Your task to perform on an android device: View the shopping cart on ebay.com. Image 0: 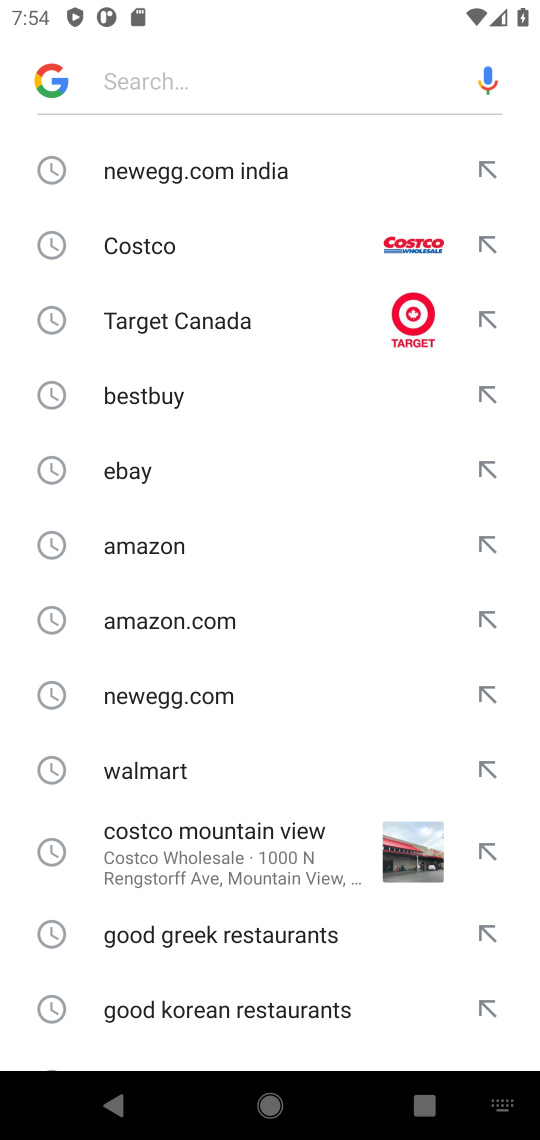
Step 0: click (142, 466)
Your task to perform on an android device: View the shopping cart on ebay.com. Image 1: 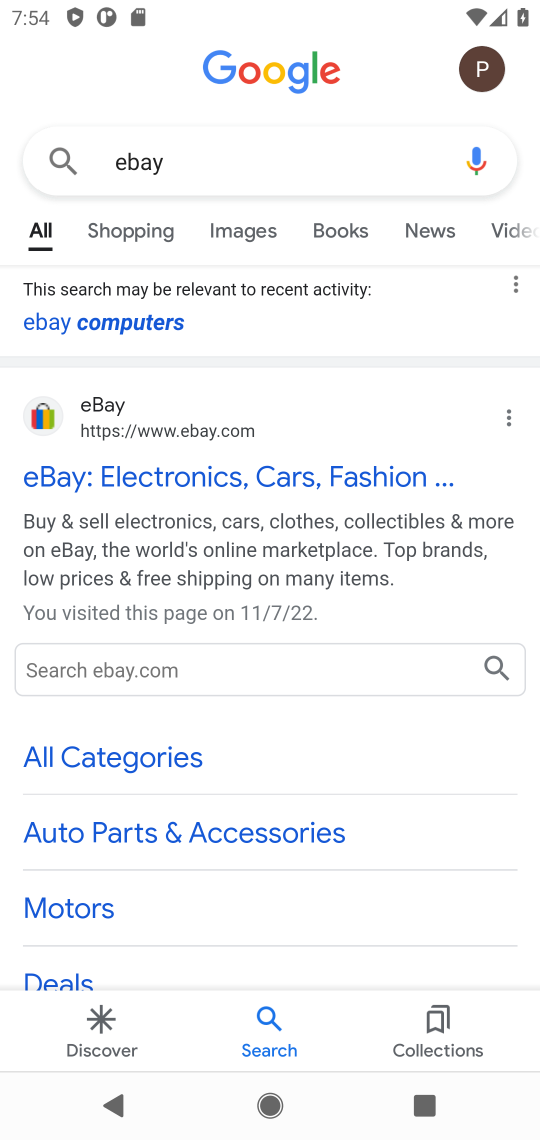
Step 1: click (142, 466)
Your task to perform on an android device: View the shopping cart on ebay.com. Image 2: 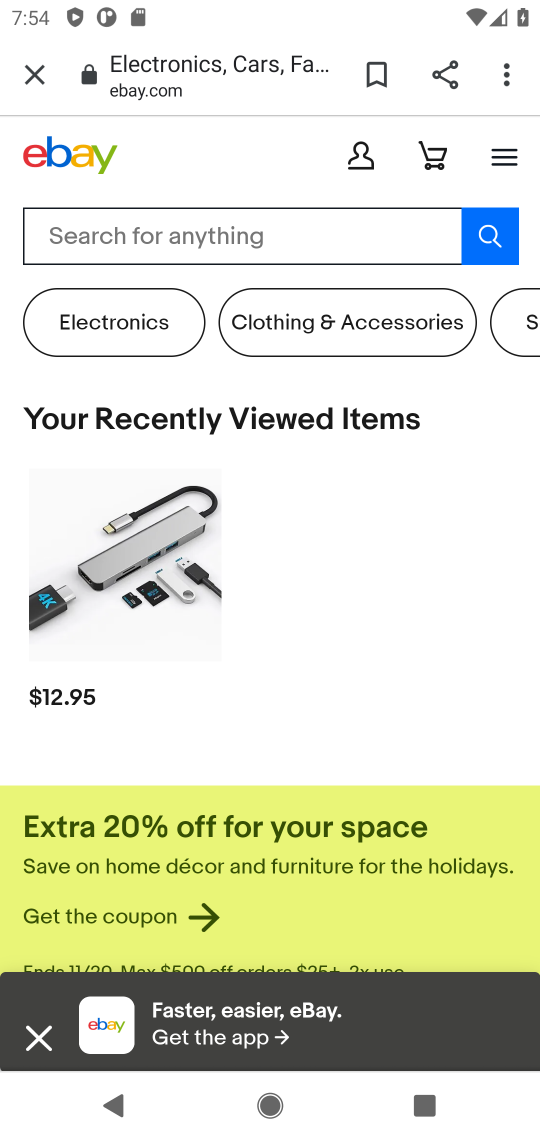
Step 2: click (269, 223)
Your task to perform on an android device: View the shopping cart on ebay.com. Image 3: 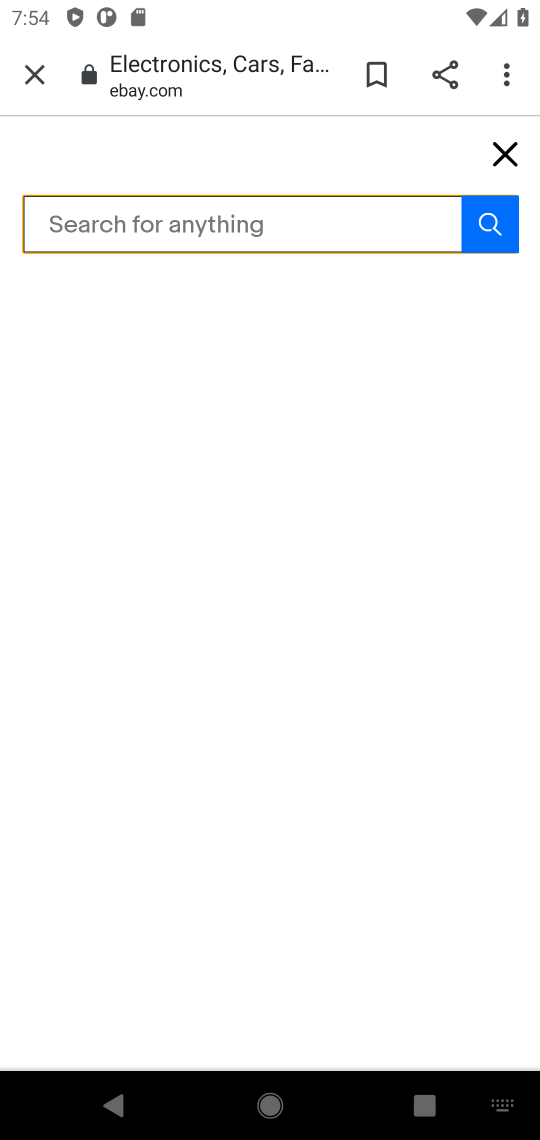
Step 3: click (513, 143)
Your task to perform on an android device: View the shopping cart on ebay.com. Image 4: 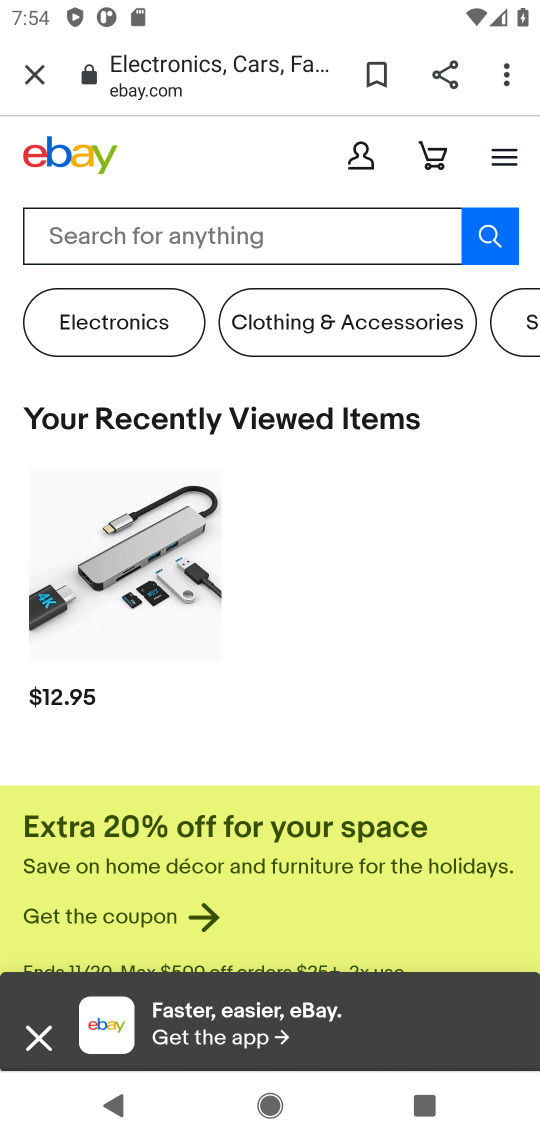
Step 4: task complete